Your task to perform on an android device: Go to location settings Image 0: 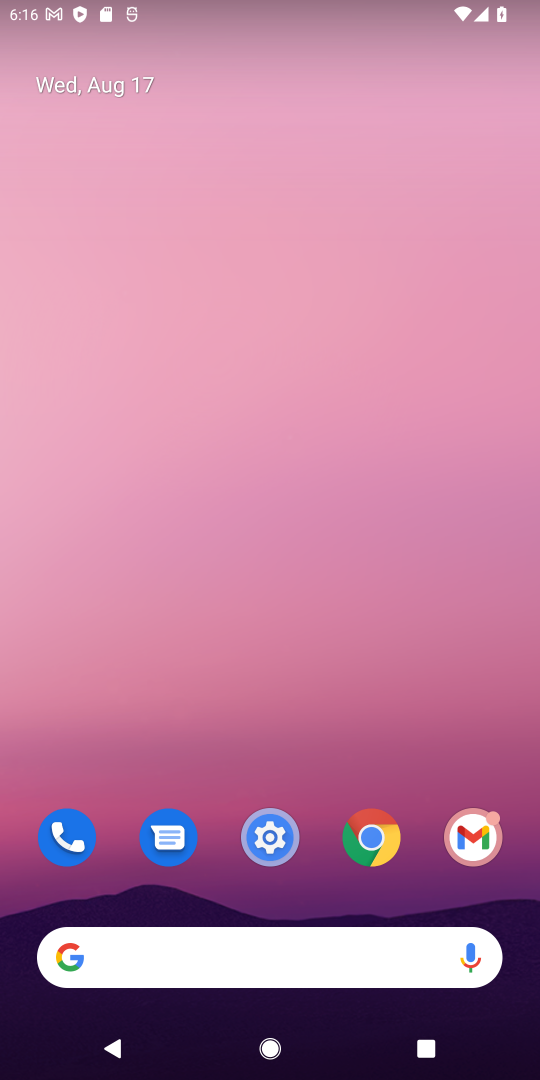
Step 0: click (264, 847)
Your task to perform on an android device: Go to location settings Image 1: 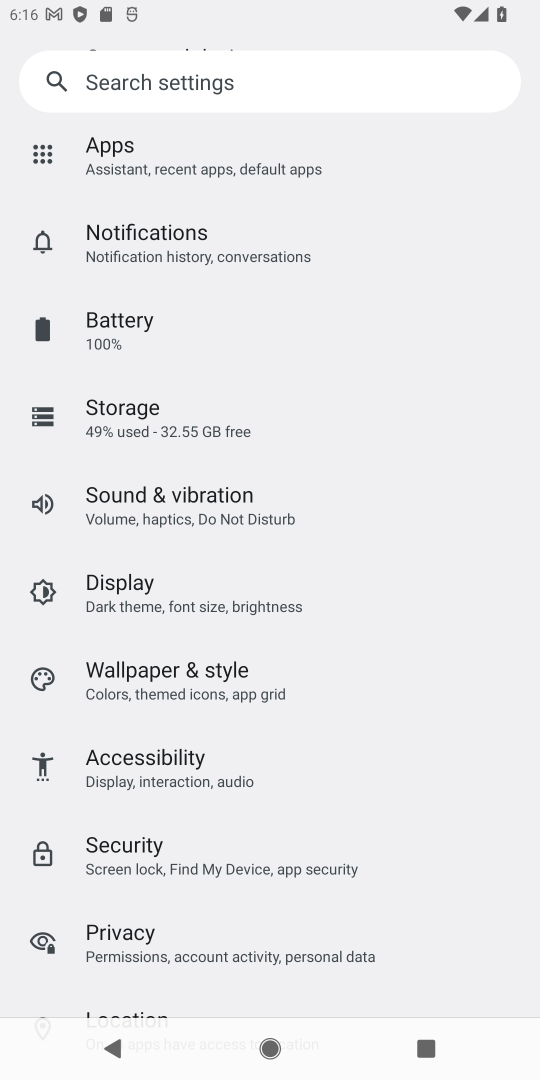
Step 1: drag from (225, 326) to (241, 988)
Your task to perform on an android device: Go to location settings Image 2: 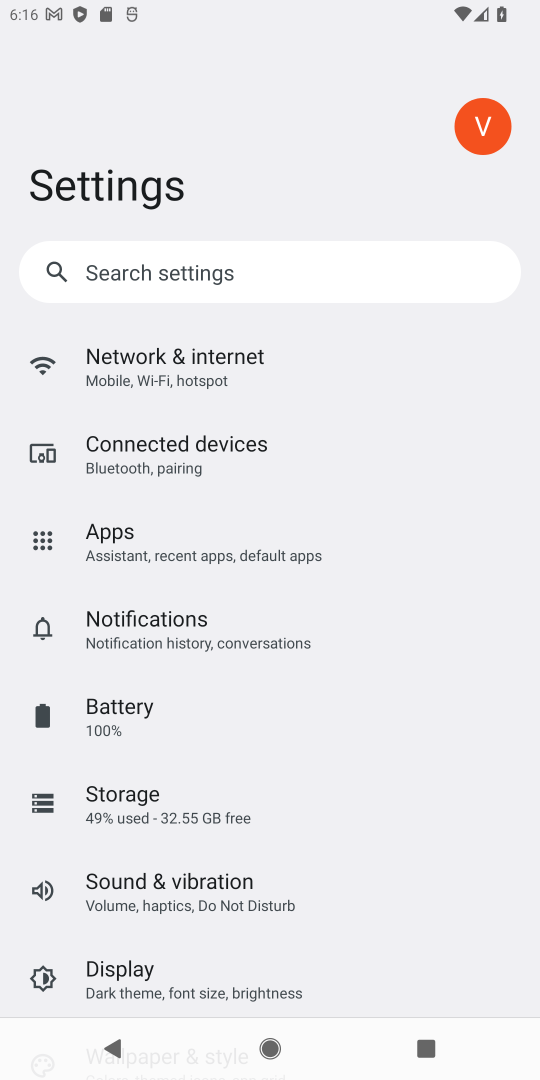
Step 2: drag from (185, 961) to (337, 319)
Your task to perform on an android device: Go to location settings Image 3: 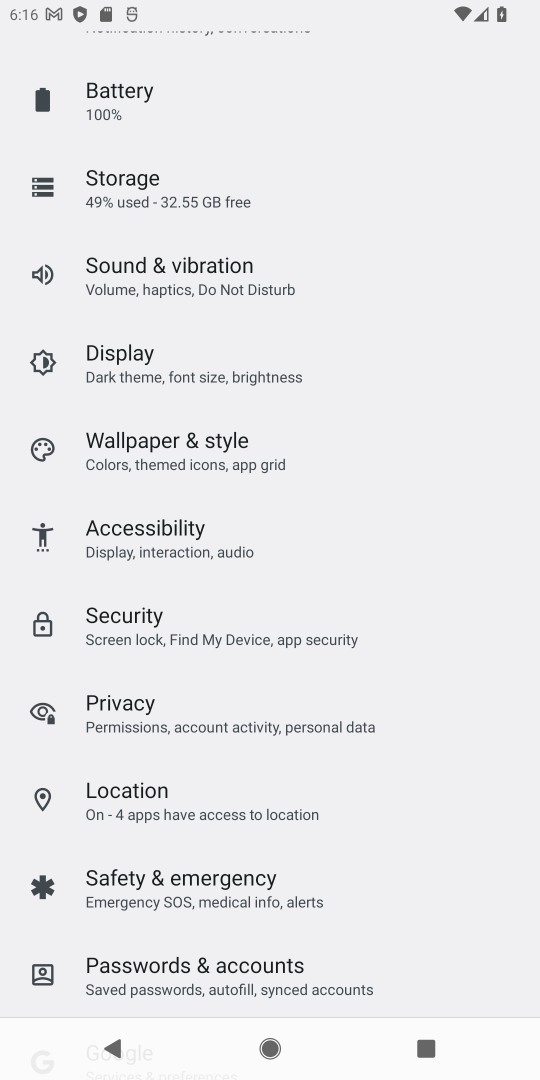
Step 3: click (161, 811)
Your task to perform on an android device: Go to location settings Image 4: 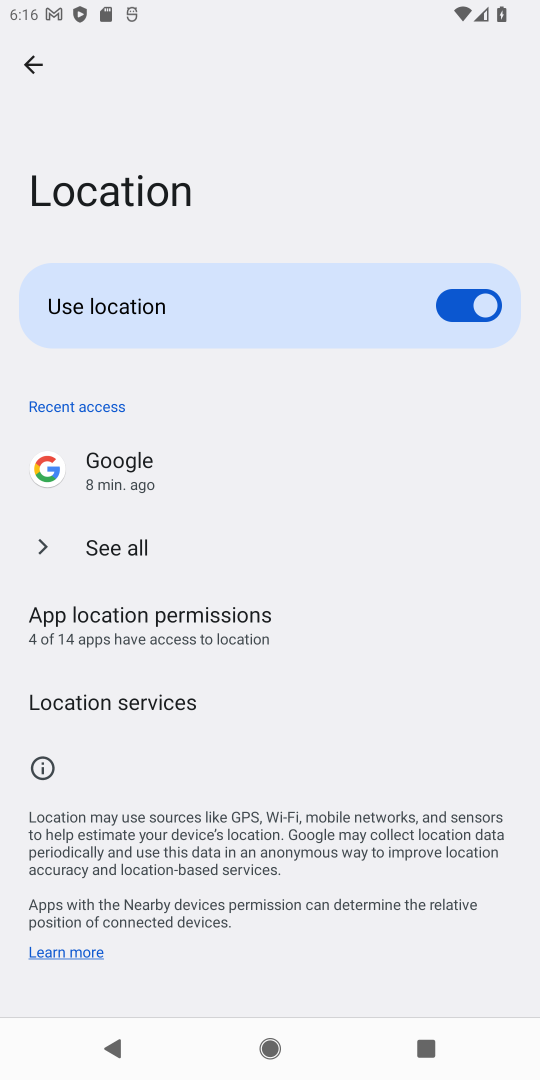
Step 4: task complete